Your task to perform on an android device: Open calendar and show me the second week of next month Image 0: 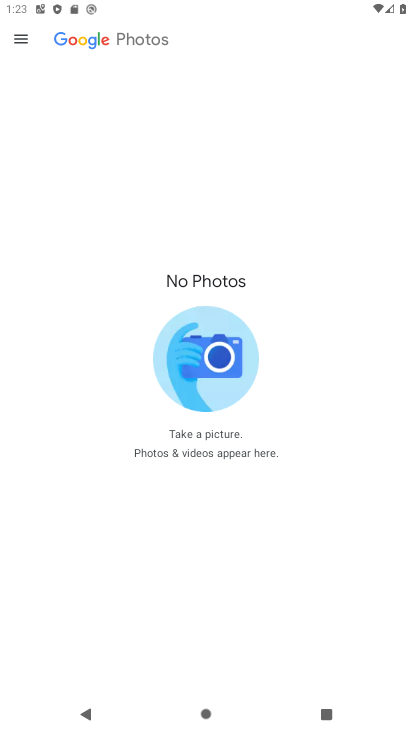
Step 0: press home button
Your task to perform on an android device: Open calendar and show me the second week of next month Image 1: 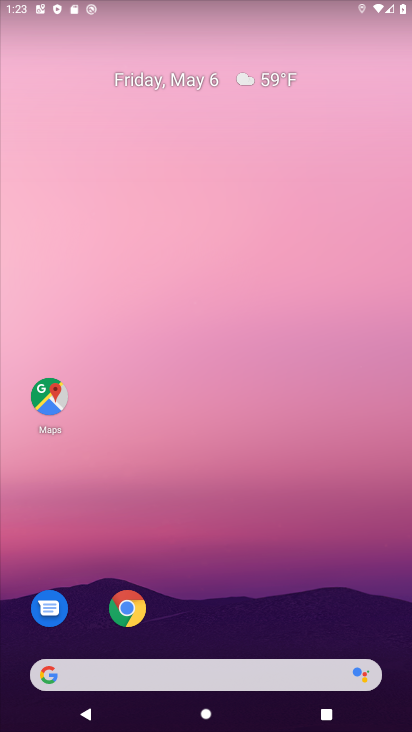
Step 1: drag from (214, 573) to (256, 102)
Your task to perform on an android device: Open calendar and show me the second week of next month Image 2: 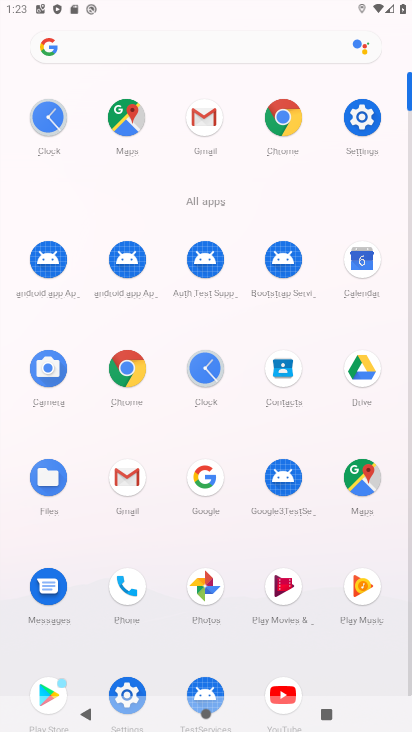
Step 2: click (372, 266)
Your task to perform on an android device: Open calendar and show me the second week of next month Image 3: 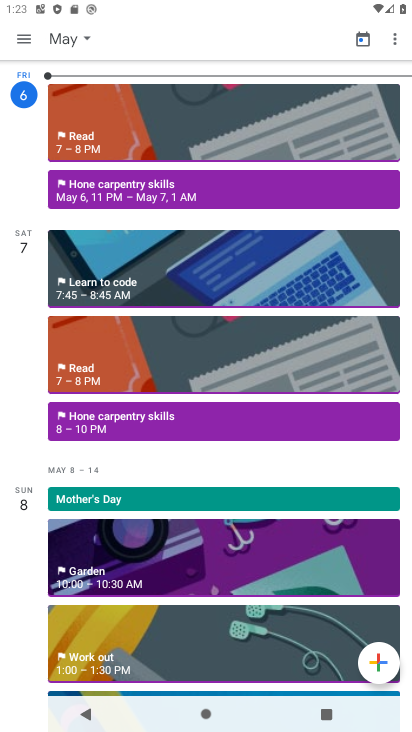
Step 3: click (63, 32)
Your task to perform on an android device: Open calendar and show me the second week of next month Image 4: 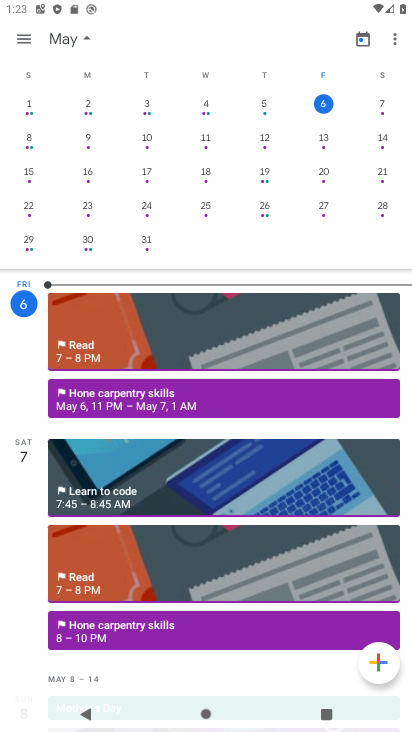
Step 4: drag from (389, 107) to (3, 143)
Your task to perform on an android device: Open calendar and show me the second week of next month Image 5: 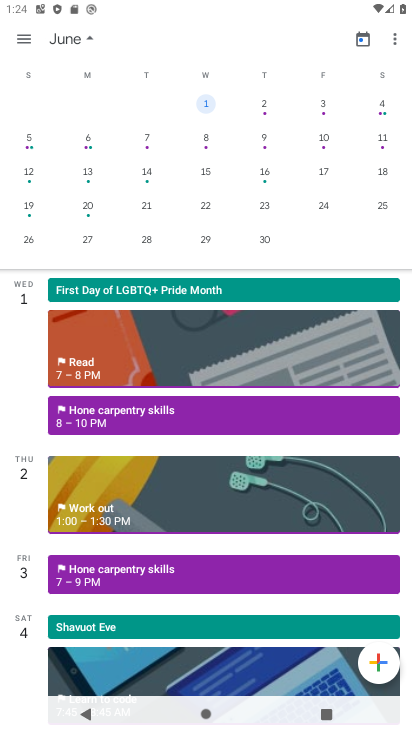
Step 5: click (206, 126)
Your task to perform on an android device: Open calendar and show me the second week of next month Image 6: 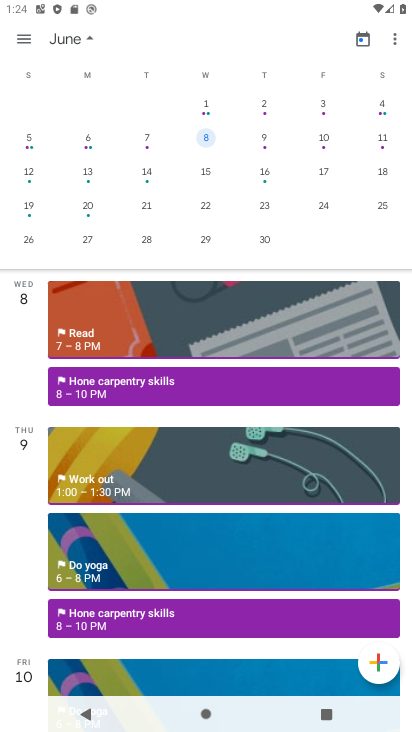
Step 6: task complete